Your task to perform on an android device: Go to notification settings Image 0: 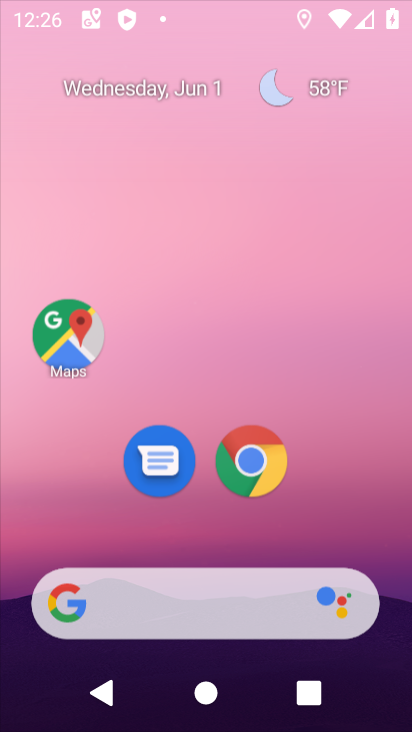
Step 0: click (216, 60)
Your task to perform on an android device: Go to notification settings Image 1: 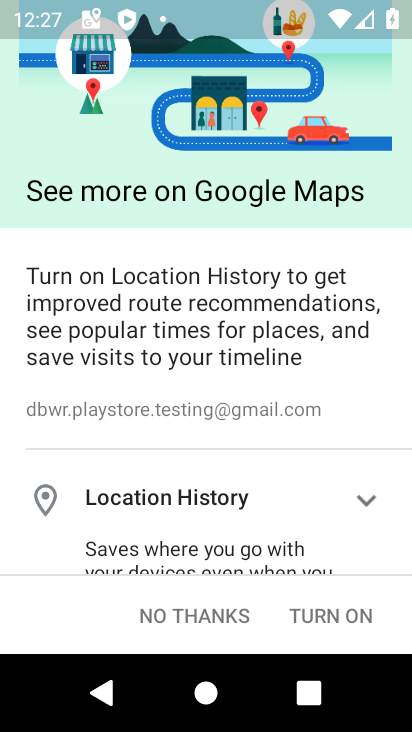
Step 1: press home button
Your task to perform on an android device: Go to notification settings Image 2: 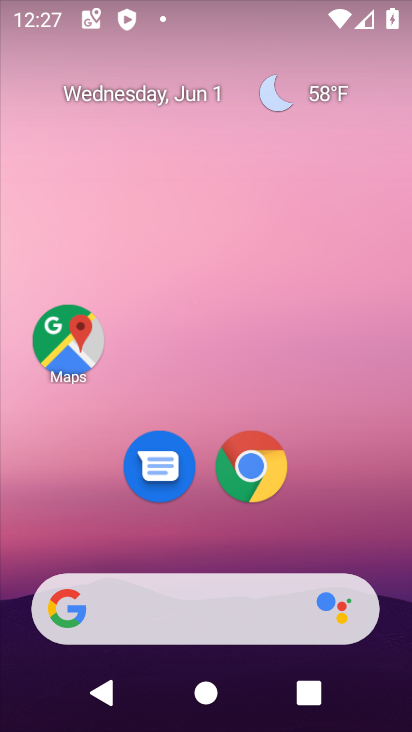
Step 2: drag from (398, 585) to (312, 216)
Your task to perform on an android device: Go to notification settings Image 3: 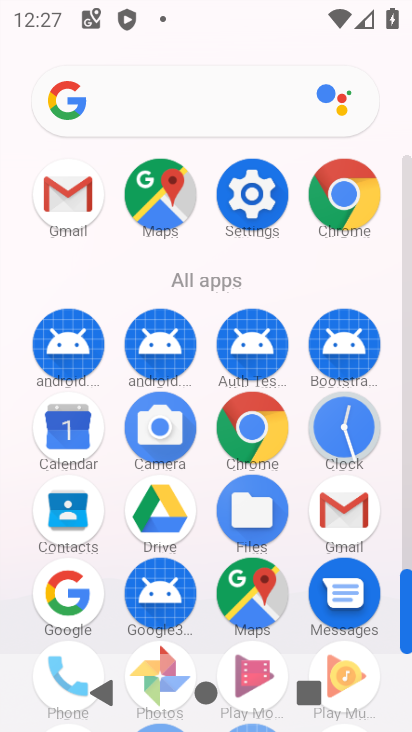
Step 3: click (263, 215)
Your task to perform on an android device: Go to notification settings Image 4: 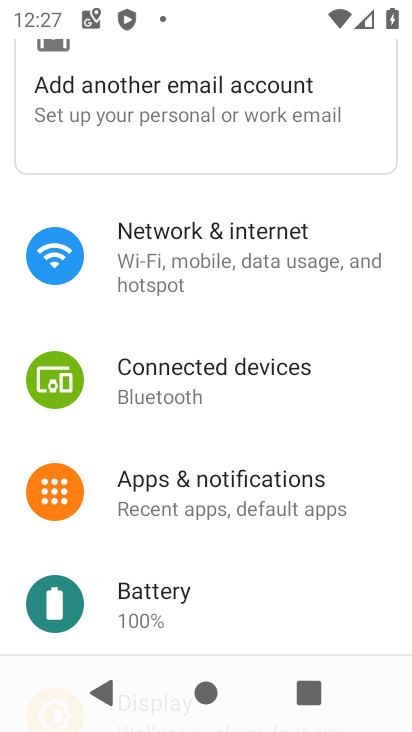
Step 4: click (311, 525)
Your task to perform on an android device: Go to notification settings Image 5: 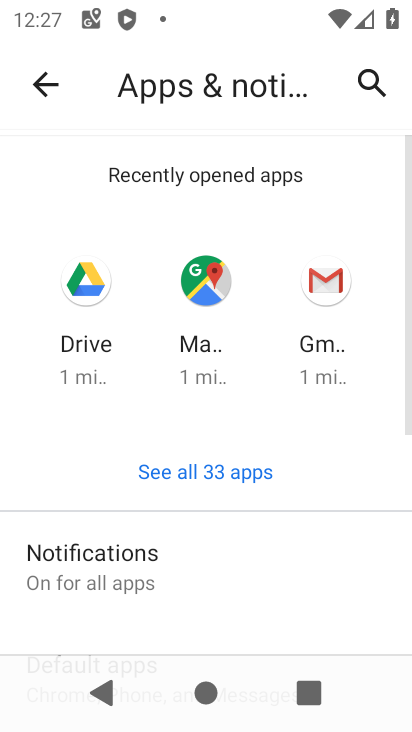
Step 5: click (309, 581)
Your task to perform on an android device: Go to notification settings Image 6: 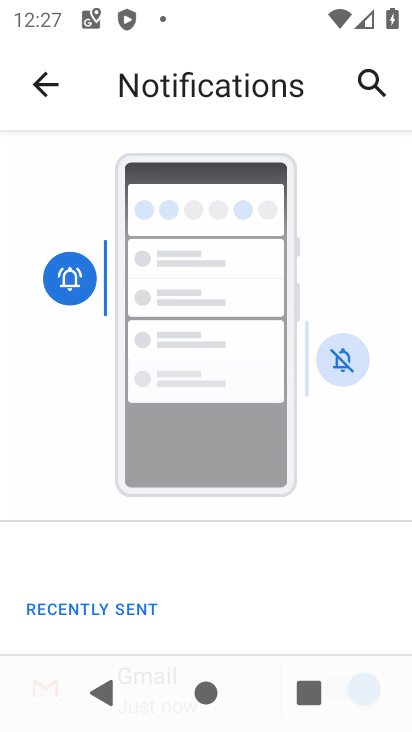
Step 6: task complete